Your task to perform on an android device: change the upload size in google photos Image 0: 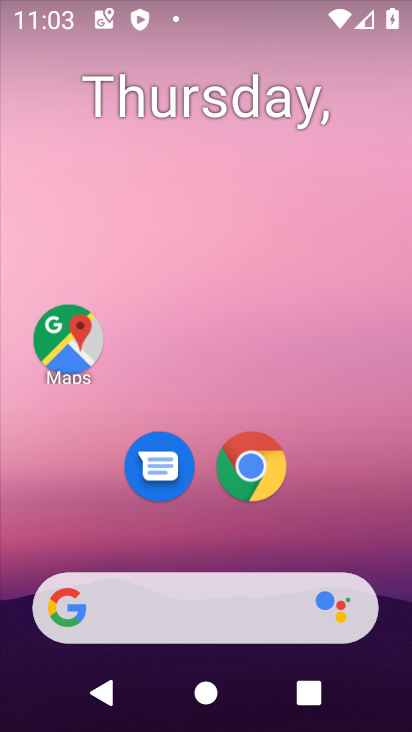
Step 0: drag from (206, 561) to (196, 0)
Your task to perform on an android device: change the upload size in google photos Image 1: 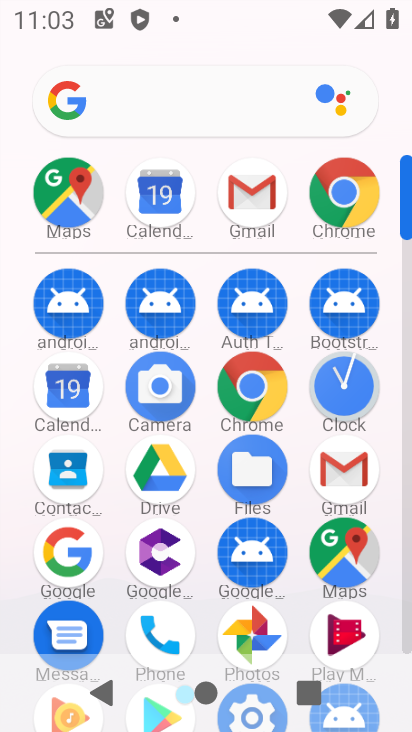
Step 1: click (258, 636)
Your task to perform on an android device: change the upload size in google photos Image 2: 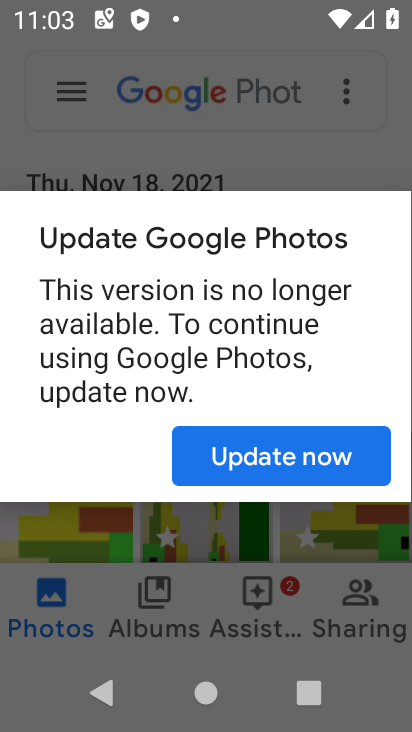
Step 2: click (236, 444)
Your task to perform on an android device: change the upload size in google photos Image 3: 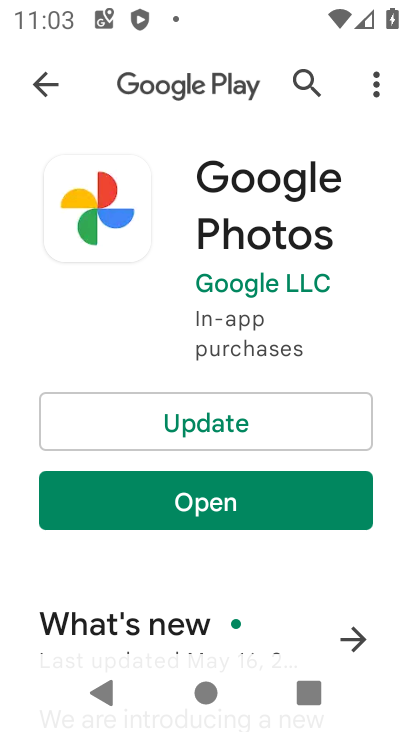
Step 3: click (245, 493)
Your task to perform on an android device: change the upload size in google photos Image 4: 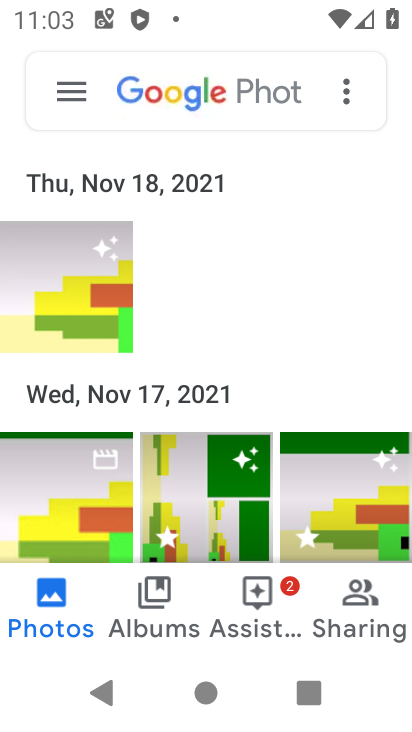
Step 4: click (84, 90)
Your task to perform on an android device: change the upload size in google photos Image 5: 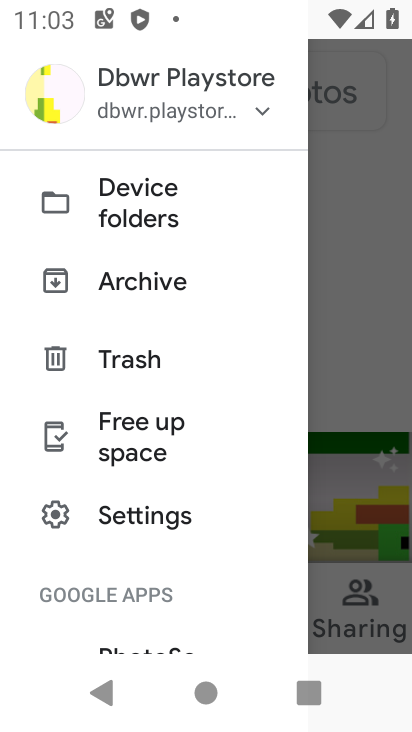
Step 5: click (143, 506)
Your task to perform on an android device: change the upload size in google photos Image 6: 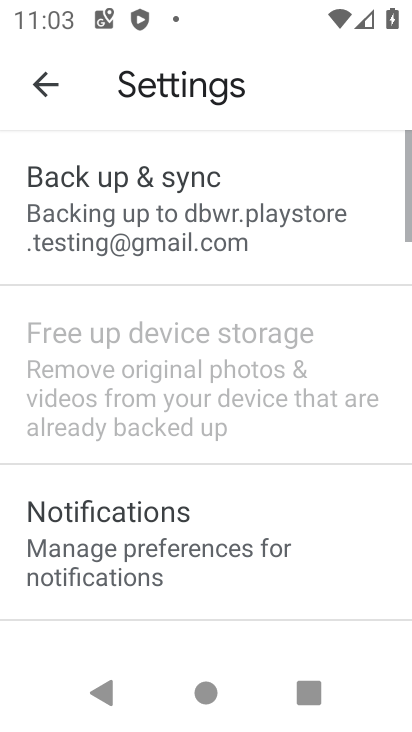
Step 6: click (114, 245)
Your task to perform on an android device: change the upload size in google photos Image 7: 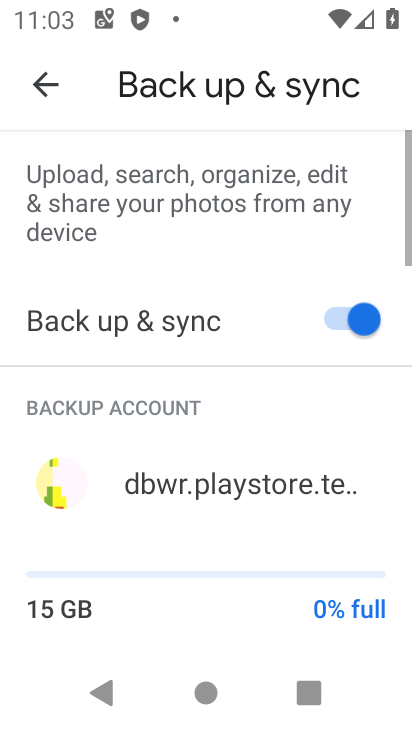
Step 7: drag from (243, 585) to (200, 142)
Your task to perform on an android device: change the upload size in google photos Image 8: 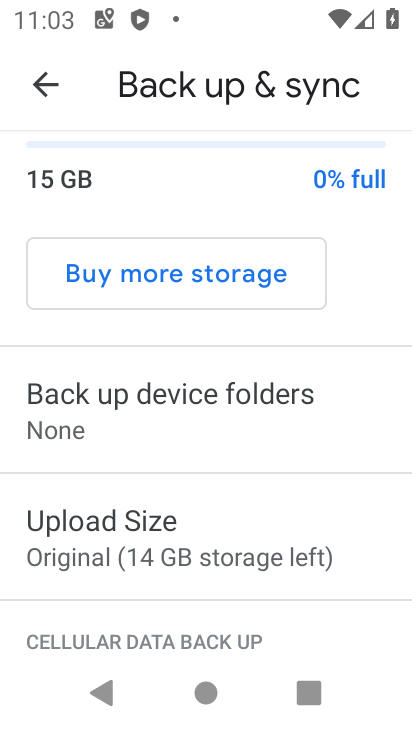
Step 8: click (221, 515)
Your task to perform on an android device: change the upload size in google photos Image 9: 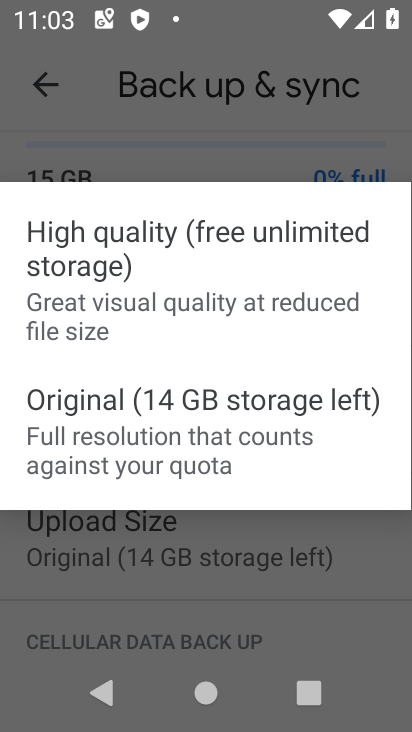
Step 9: click (161, 280)
Your task to perform on an android device: change the upload size in google photos Image 10: 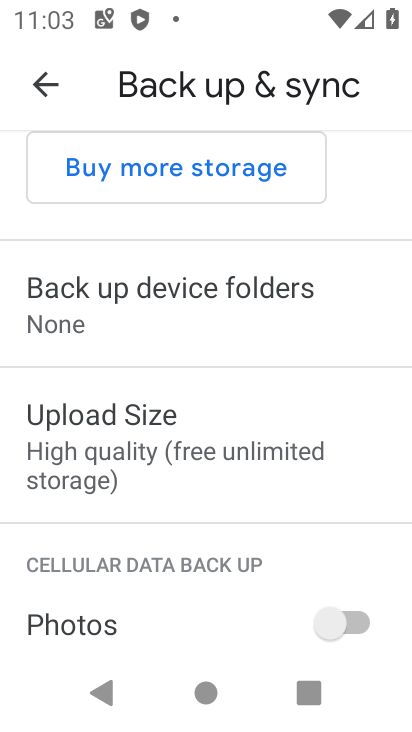
Step 10: task complete